Your task to perform on an android device: visit the assistant section in the google photos Image 0: 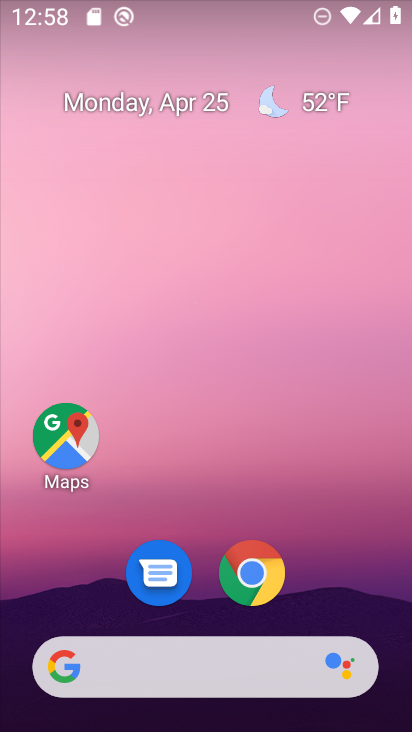
Step 0: drag from (213, 602) to (215, 69)
Your task to perform on an android device: visit the assistant section in the google photos Image 1: 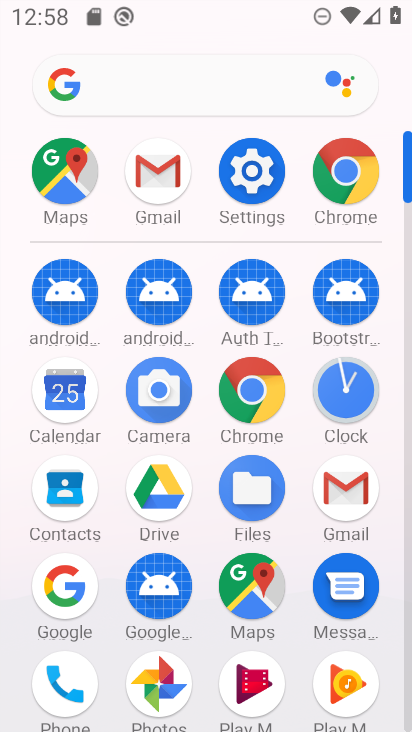
Step 1: click (167, 686)
Your task to perform on an android device: visit the assistant section in the google photos Image 2: 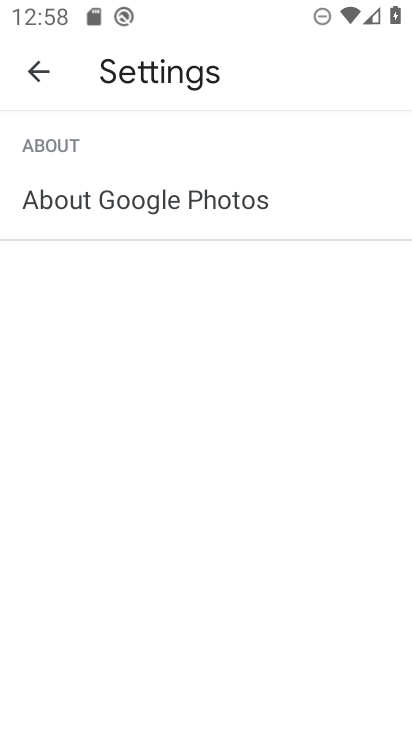
Step 2: click (45, 66)
Your task to perform on an android device: visit the assistant section in the google photos Image 3: 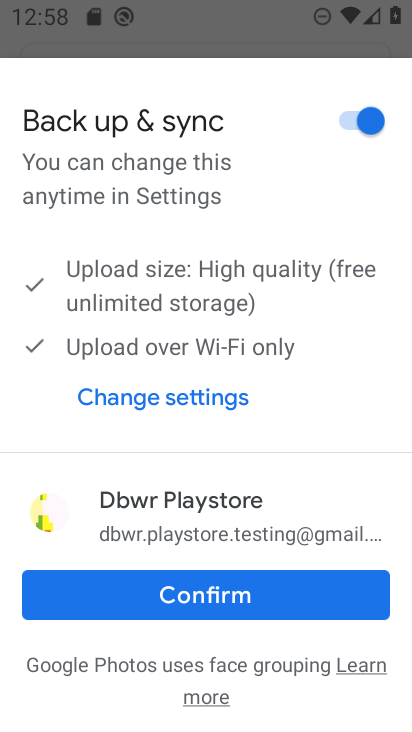
Step 3: click (204, 596)
Your task to perform on an android device: visit the assistant section in the google photos Image 4: 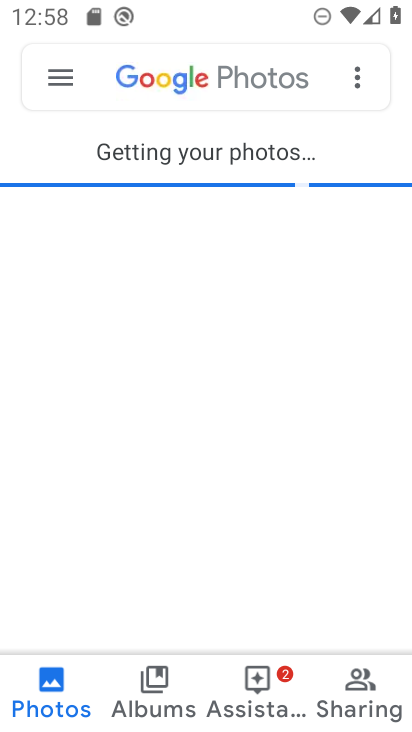
Step 4: click (269, 689)
Your task to perform on an android device: visit the assistant section in the google photos Image 5: 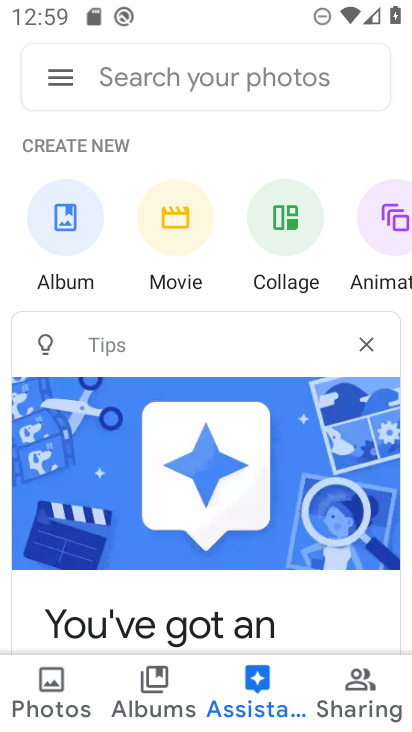
Step 5: task complete